Your task to perform on an android device: turn off priority inbox in the gmail app Image 0: 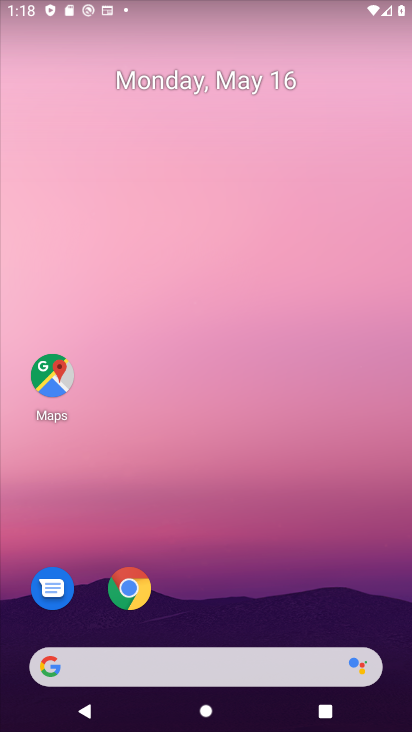
Step 0: drag from (261, 601) to (235, 161)
Your task to perform on an android device: turn off priority inbox in the gmail app Image 1: 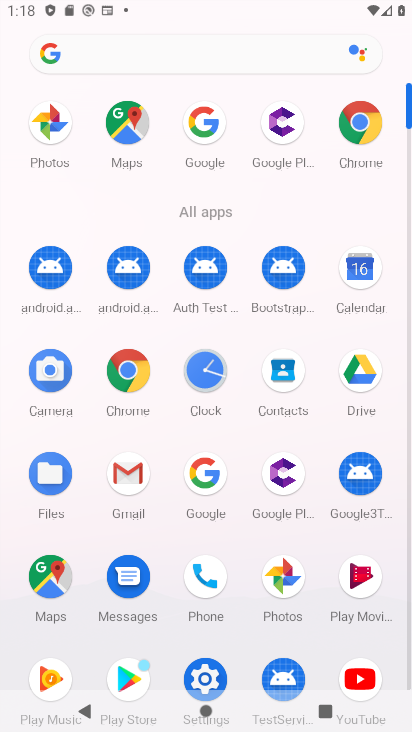
Step 1: click (125, 470)
Your task to perform on an android device: turn off priority inbox in the gmail app Image 2: 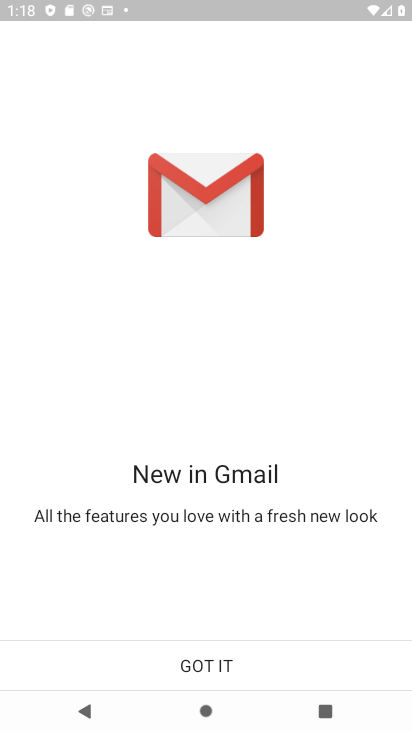
Step 2: click (216, 664)
Your task to perform on an android device: turn off priority inbox in the gmail app Image 3: 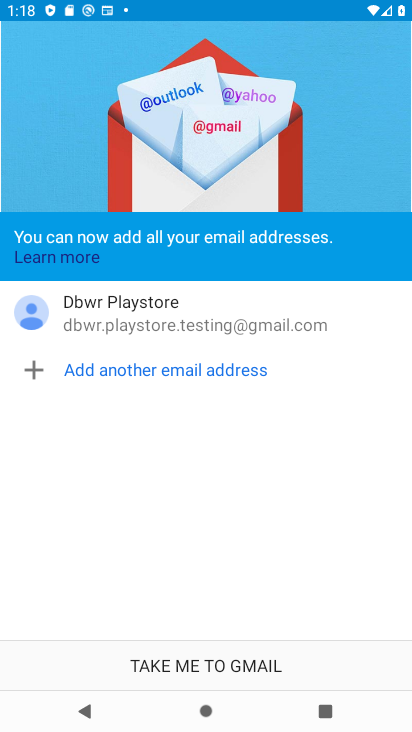
Step 3: click (216, 664)
Your task to perform on an android device: turn off priority inbox in the gmail app Image 4: 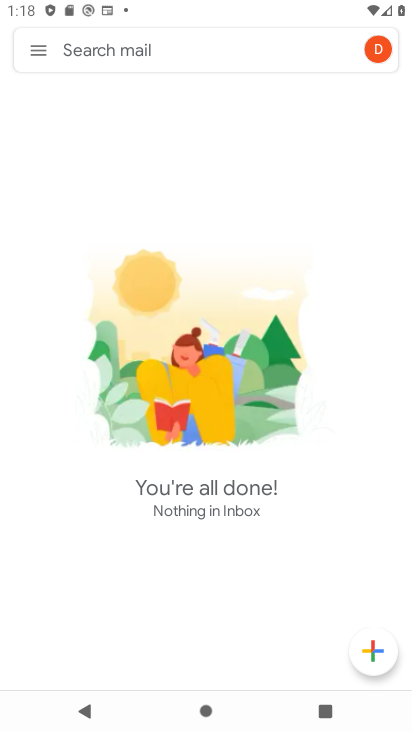
Step 4: click (35, 48)
Your task to perform on an android device: turn off priority inbox in the gmail app Image 5: 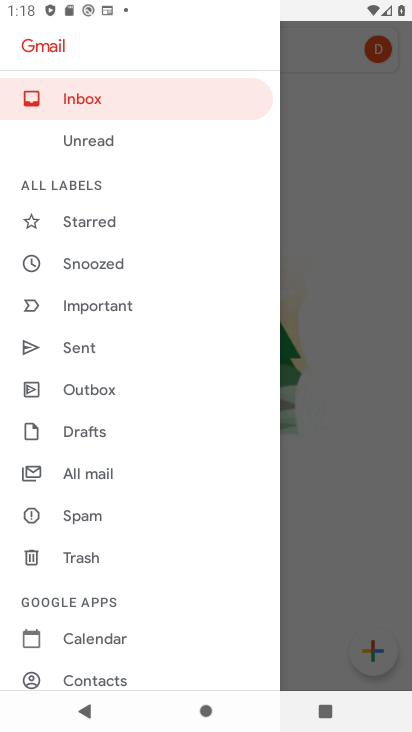
Step 5: drag from (97, 530) to (122, 411)
Your task to perform on an android device: turn off priority inbox in the gmail app Image 6: 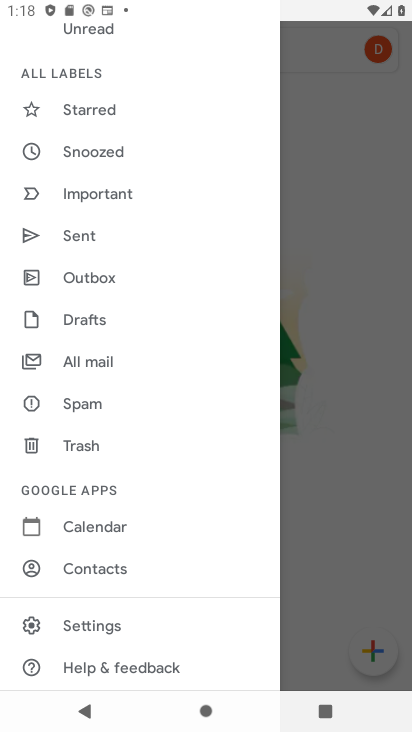
Step 6: click (101, 625)
Your task to perform on an android device: turn off priority inbox in the gmail app Image 7: 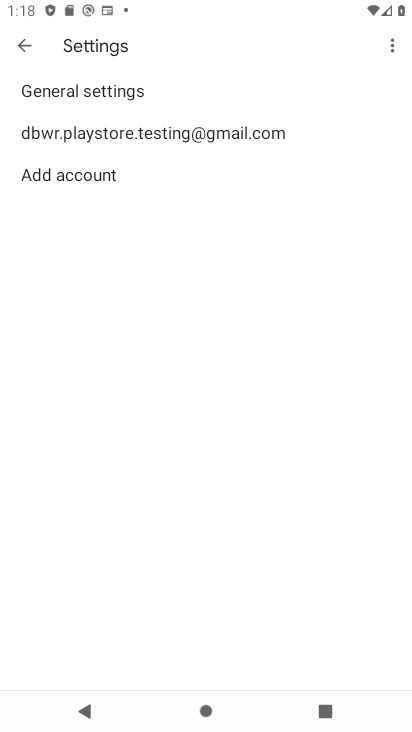
Step 7: click (148, 136)
Your task to perform on an android device: turn off priority inbox in the gmail app Image 8: 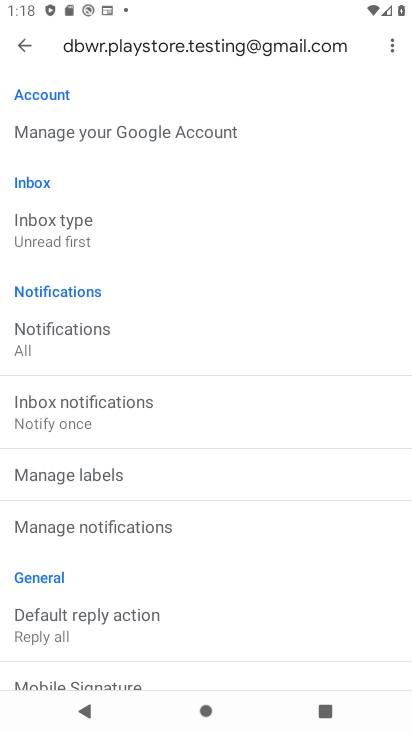
Step 8: drag from (80, 555) to (162, 450)
Your task to perform on an android device: turn off priority inbox in the gmail app Image 9: 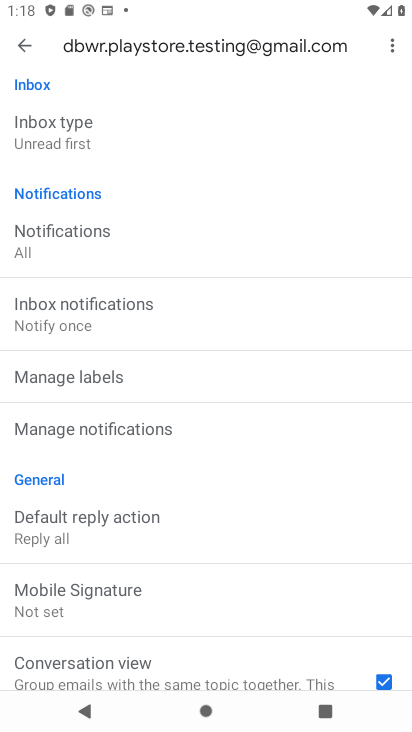
Step 9: click (67, 146)
Your task to perform on an android device: turn off priority inbox in the gmail app Image 10: 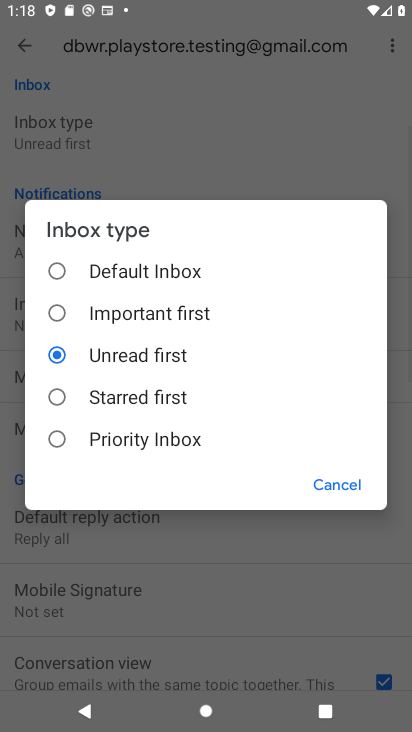
Step 10: click (52, 360)
Your task to perform on an android device: turn off priority inbox in the gmail app Image 11: 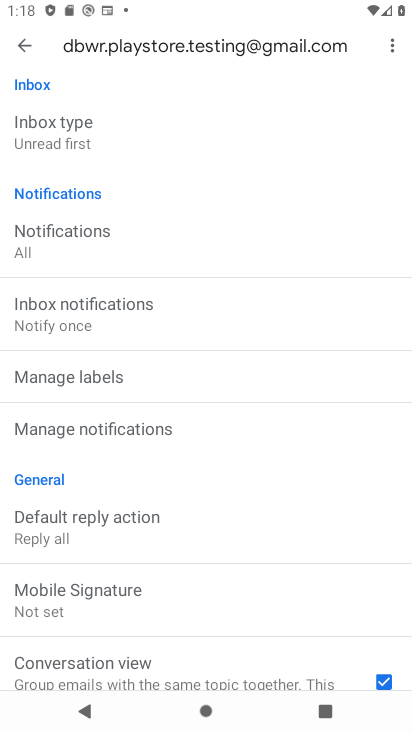
Step 11: task complete